Your task to perform on an android device: turn on location history Image 0: 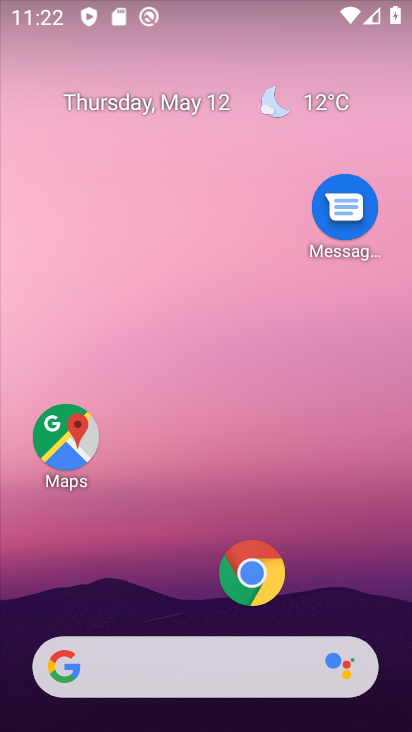
Step 0: drag from (208, 536) to (217, 89)
Your task to perform on an android device: turn on location history Image 1: 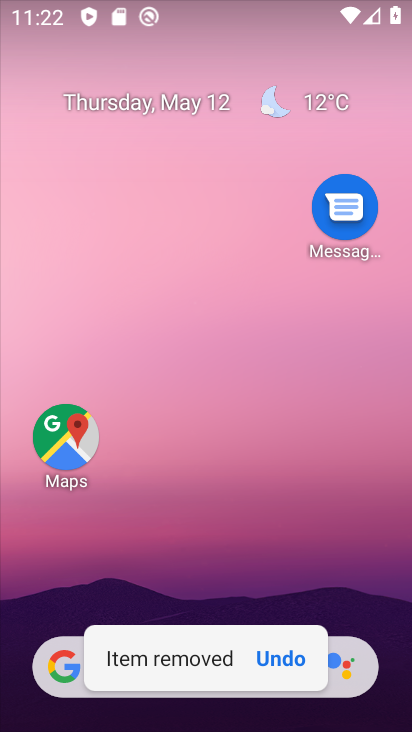
Step 1: click (248, 555)
Your task to perform on an android device: turn on location history Image 2: 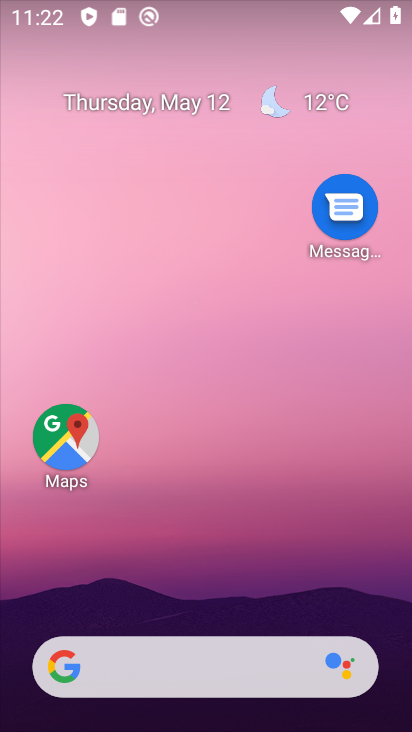
Step 2: drag from (208, 529) to (215, 36)
Your task to perform on an android device: turn on location history Image 3: 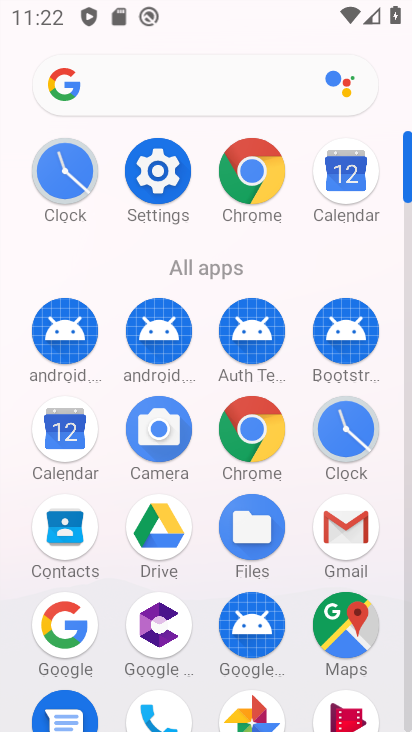
Step 3: click (344, 623)
Your task to perform on an android device: turn on location history Image 4: 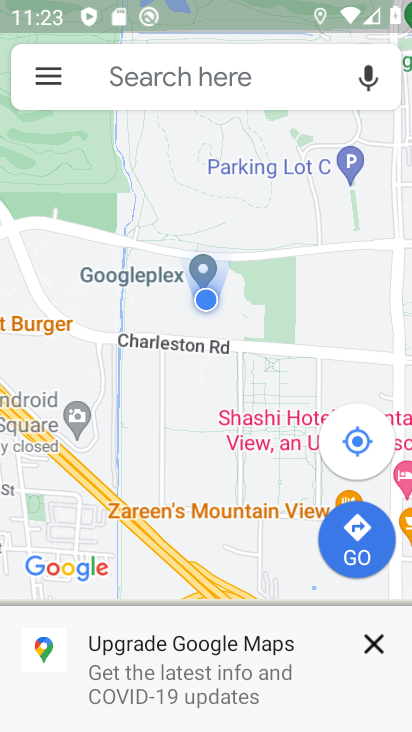
Step 4: click (44, 64)
Your task to perform on an android device: turn on location history Image 5: 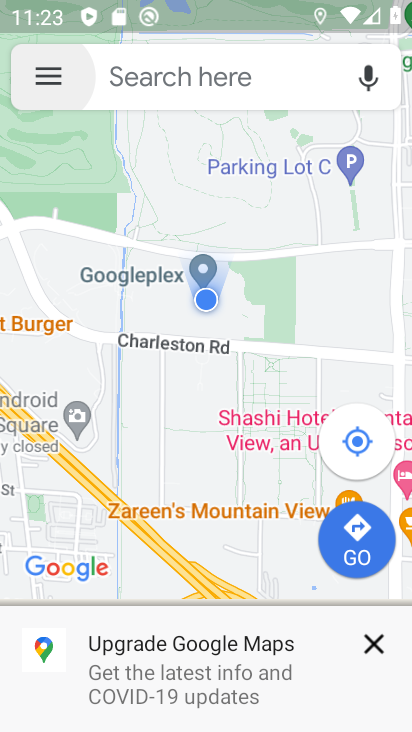
Step 5: click (44, 72)
Your task to perform on an android device: turn on location history Image 6: 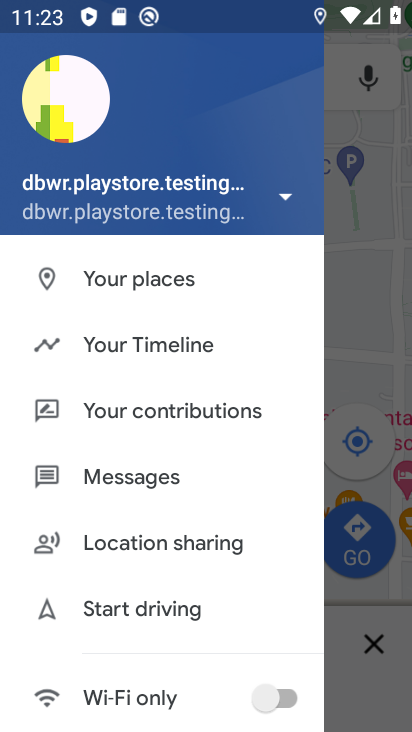
Step 6: click (117, 339)
Your task to perform on an android device: turn on location history Image 7: 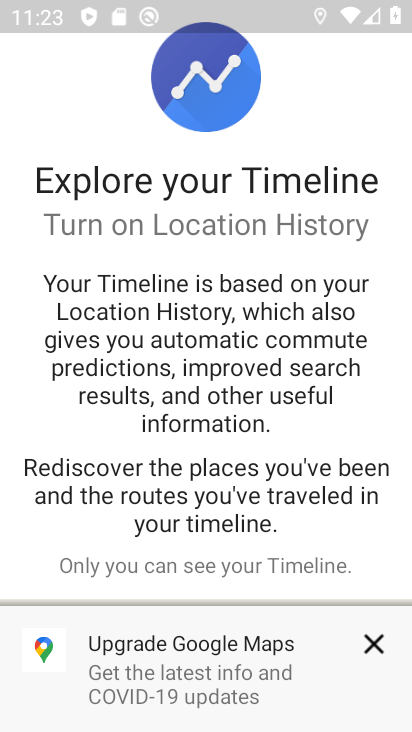
Step 7: click (368, 641)
Your task to perform on an android device: turn on location history Image 8: 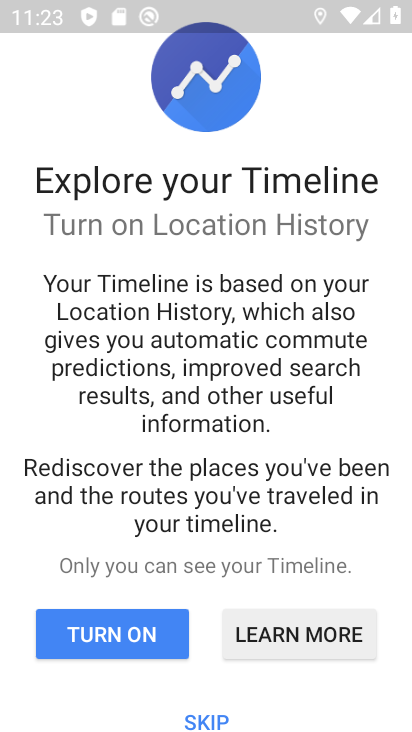
Step 8: click (153, 632)
Your task to perform on an android device: turn on location history Image 9: 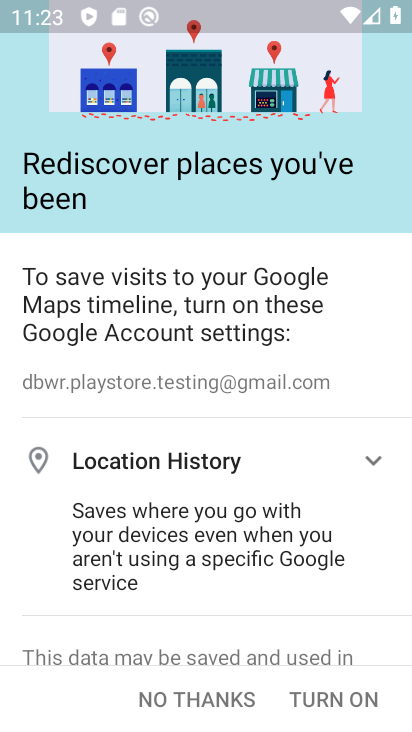
Step 9: click (317, 696)
Your task to perform on an android device: turn on location history Image 10: 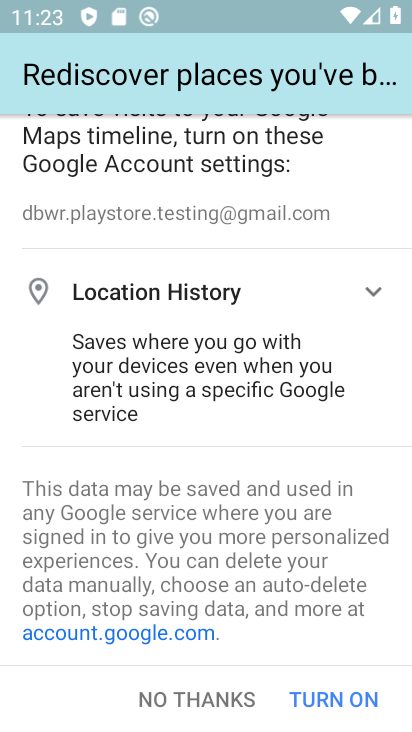
Step 10: drag from (294, 531) to (251, 274)
Your task to perform on an android device: turn on location history Image 11: 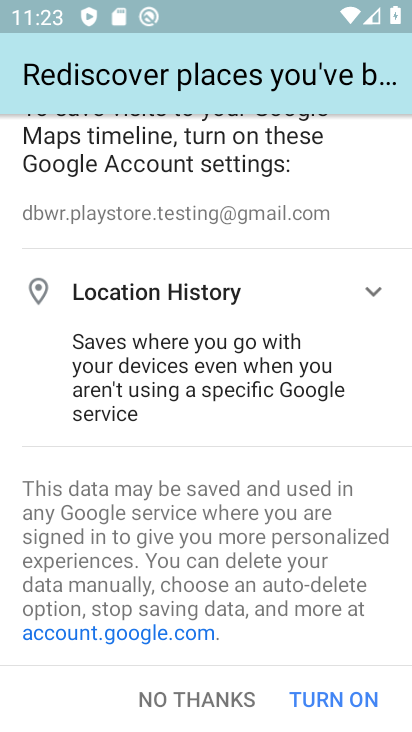
Step 11: click (305, 698)
Your task to perform on an android device: turn on location history Image 12: 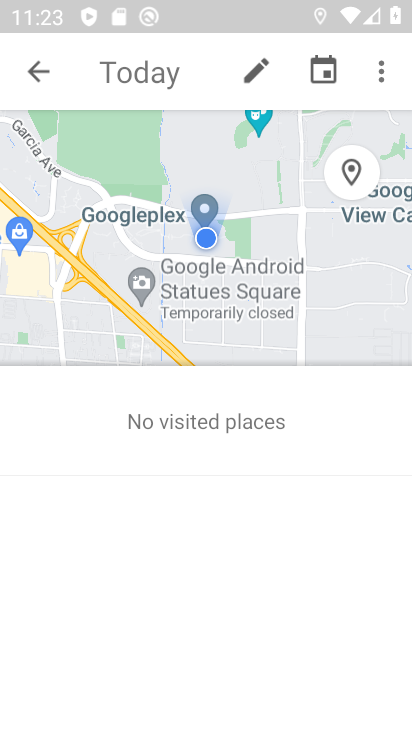
Step 12: task complete